Your task to perform on an android device: Search for a new lipgloss Image 0: 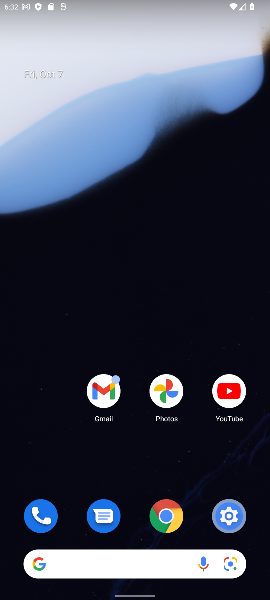
Step 0: click (122, 575)
Your task to perform on an android device: Search for a new lipgloss Image 1: 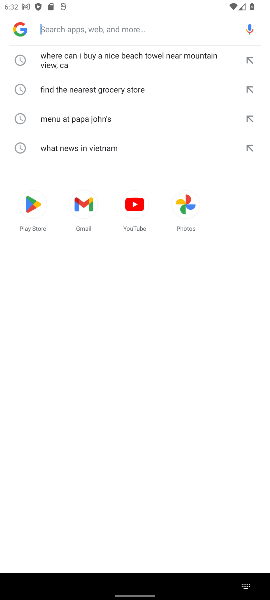
Step 1: type "Search for a new lipgloss"
Your task to perform on an android device: Search for a new lipgloss Image 2: 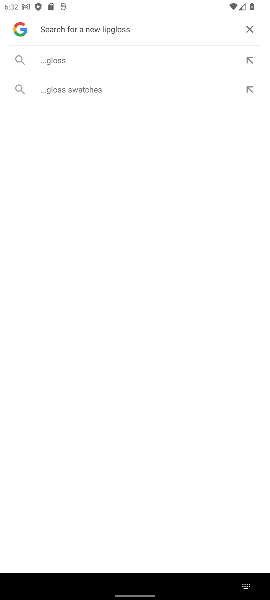
Step 2: click (101, 61)
Your task to perform on an android device: Search for a new lipgloss Image 3: 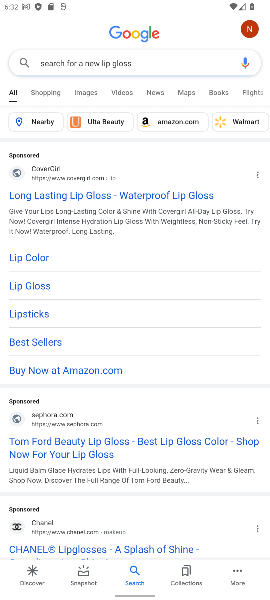
Step 3: task complete